Your task to perform on an android device: delete location history Image 0: 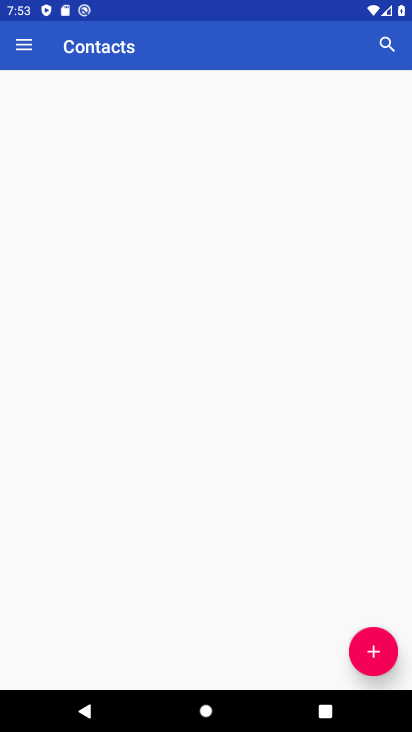
Step 0: press home button
Your task to perform on an android device: delete location history Image 1: 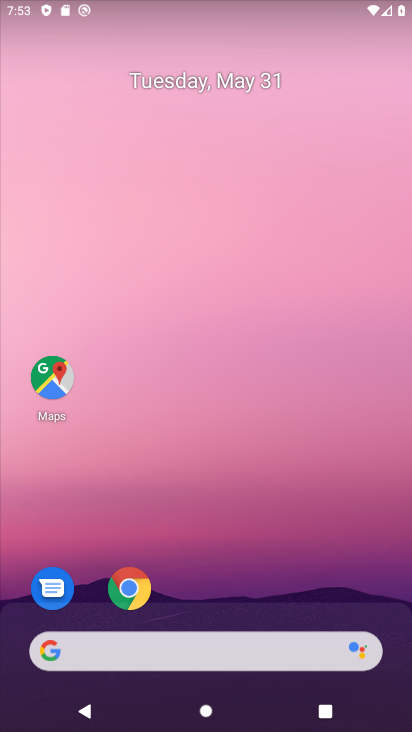
Step 1: drag from (196, 643) to (269, 163)
Your task to perform on an android device: delete location history Image 2: 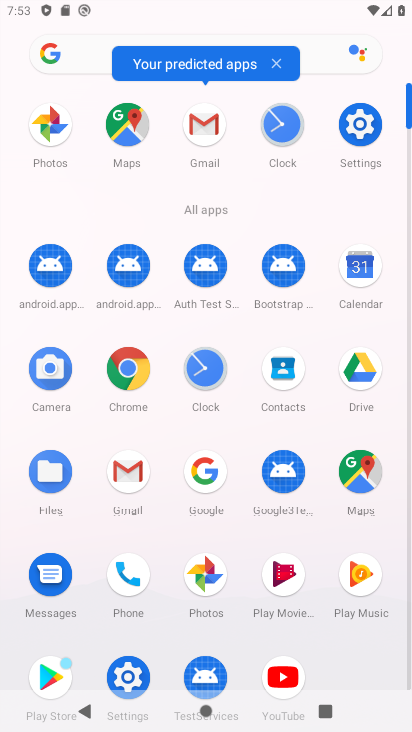
Step 2: click (381, 121)
Your task to perform on an android device: delete location history Image 3: 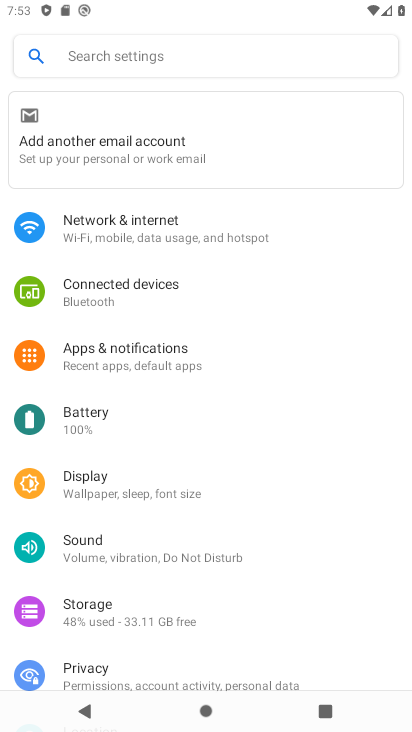
Step 3: drag from (150, 638) to (194, 259)
Your task to perform on an android device: delete location history Image 4: 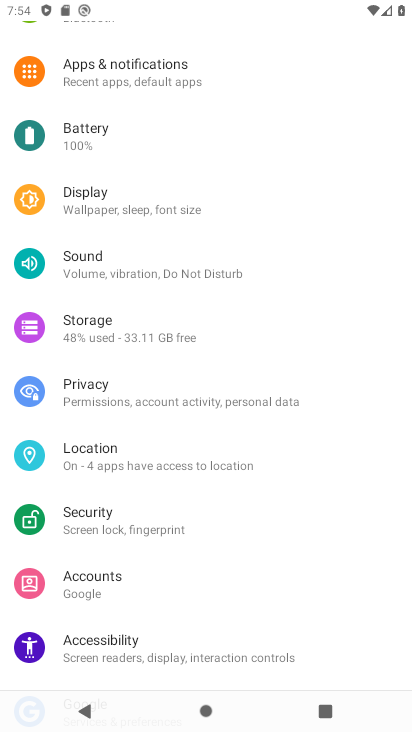
Step 4: click (87, 453)
Your task to perform on an android device: delete location history Image 5: 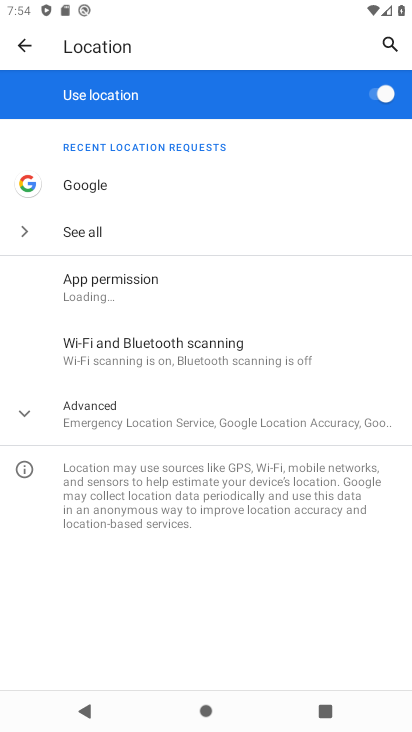
Step 5: click (138, 416)
Your task to perform on an android device: delete location history Image 6: 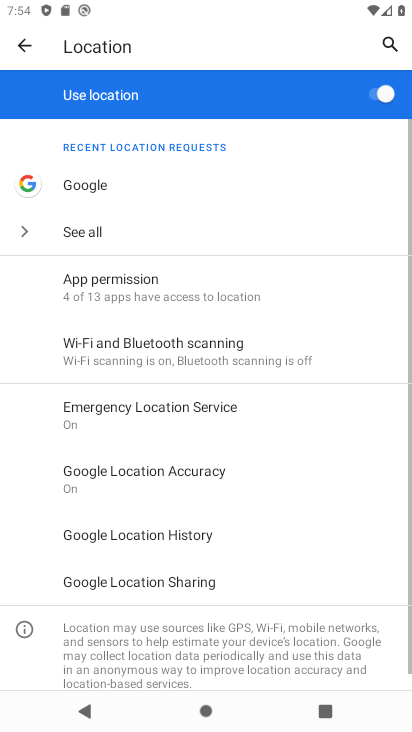
Step 6: click (136, 541)
Your task to perform on an android device: delete location history Image 7: 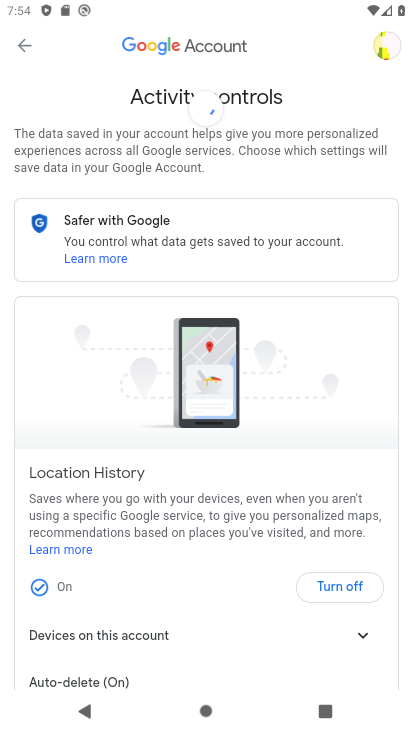
Step 7: drag from (206, 651) to (222, 102)
Your task to perform on an android device: delete location history Image 8: 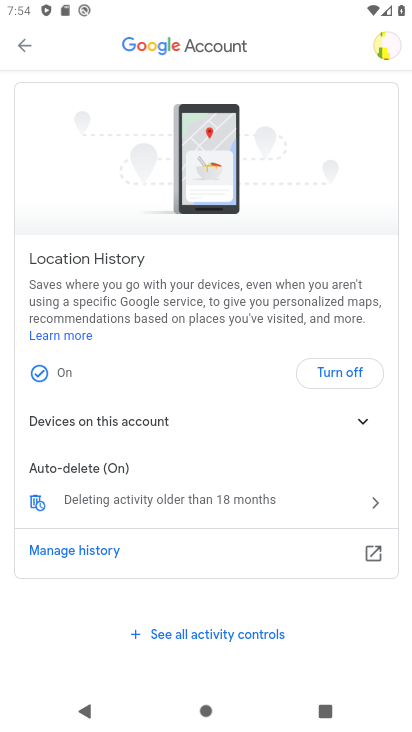
Step 8: click (128, 498)
Your task to perform on an android device: delete location history Image 9: 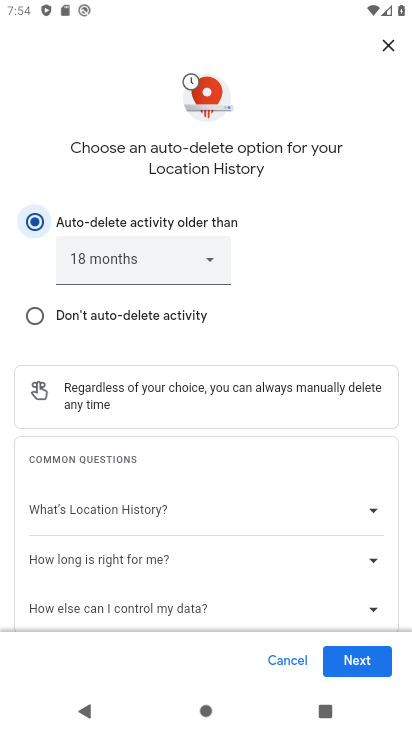
Step 9: click (361, 661)
Your task to perform on an android device: delete location history Image 10: 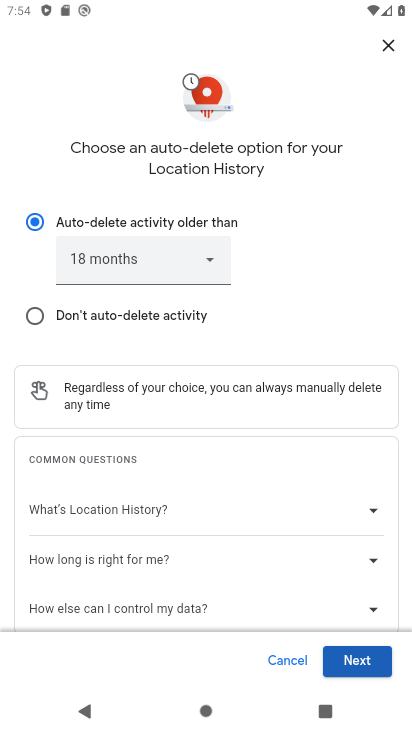
Step 10: click (361, 661)
Your task to perform on an android device: delete location history Image 11: 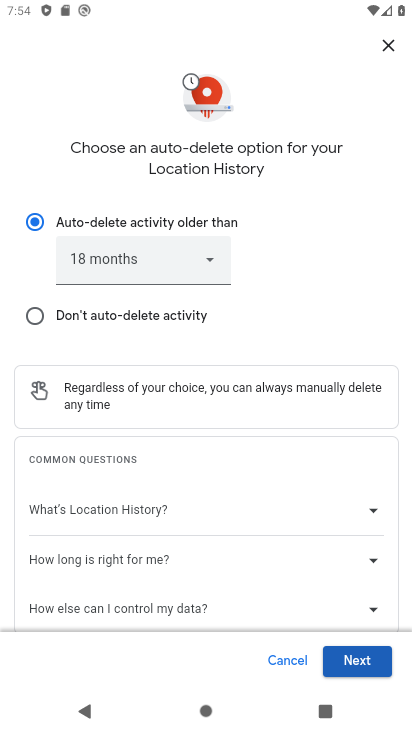
Step 11: click (361, 662)
Your task to perform on an android device: delete location history Image 12: 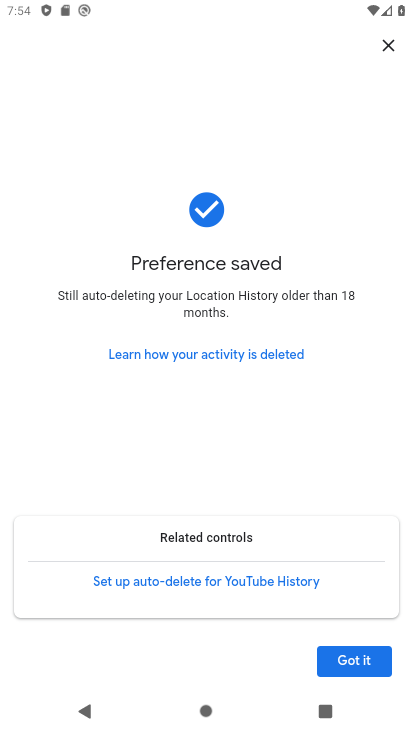
Step 12: click (361, 662)
Your task to perform on an android device: delete location history Image 13: 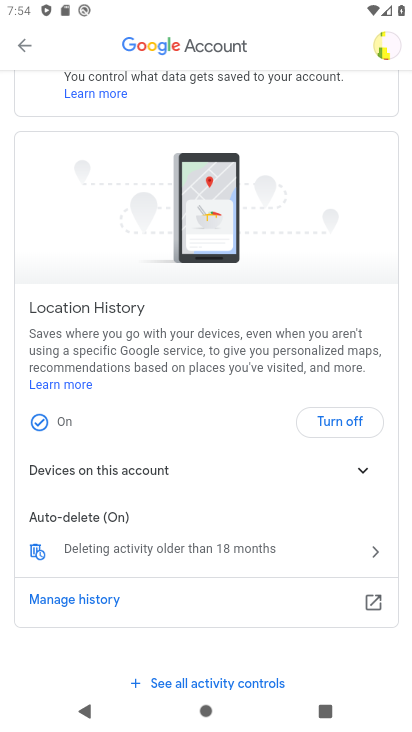
Step 13: task complete